Your task to perform on an android device: open device folders in google photos Image 0: 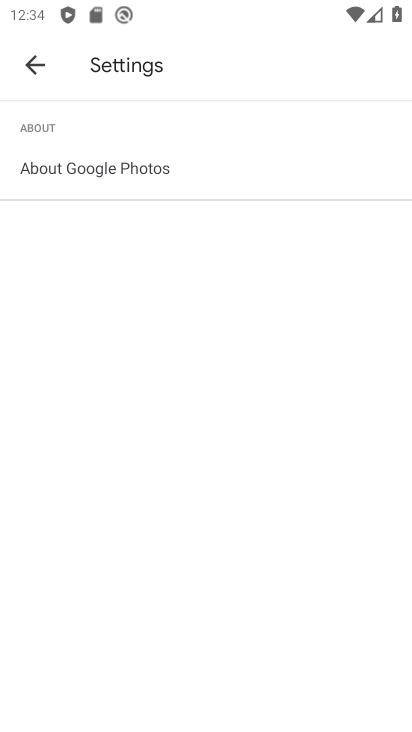
Step 0: press back button
Your task to perform on an android device: open device folders in google photos Image 1: 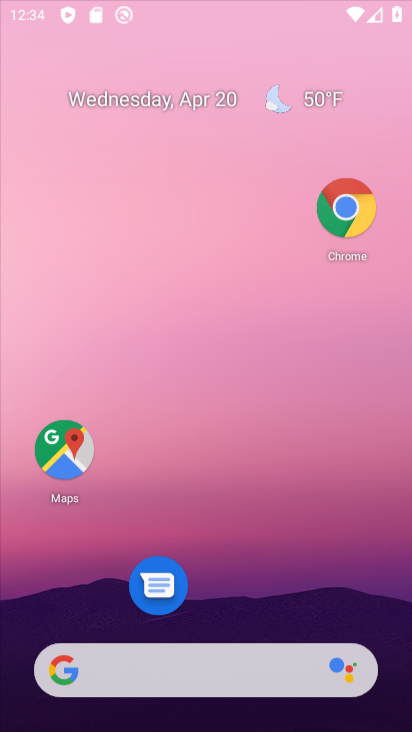
Step 1: press home button
Your task to perform on an android device: open device folders in google photos Image 2: 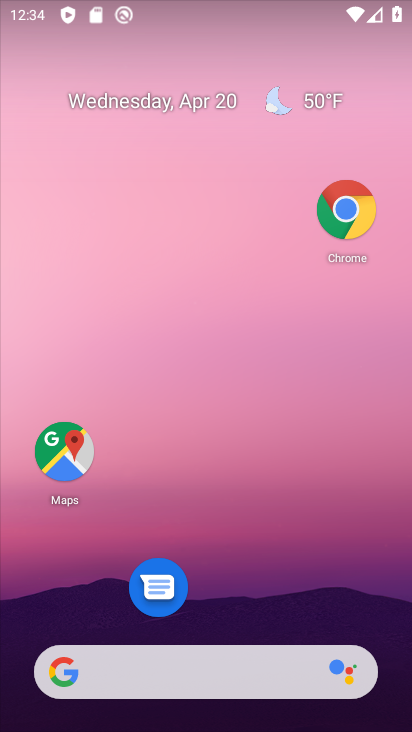
Step 2: drag from (212, 604) to (278, 279)
Your task to perform on an android device: open device folders in google photos Image 3: 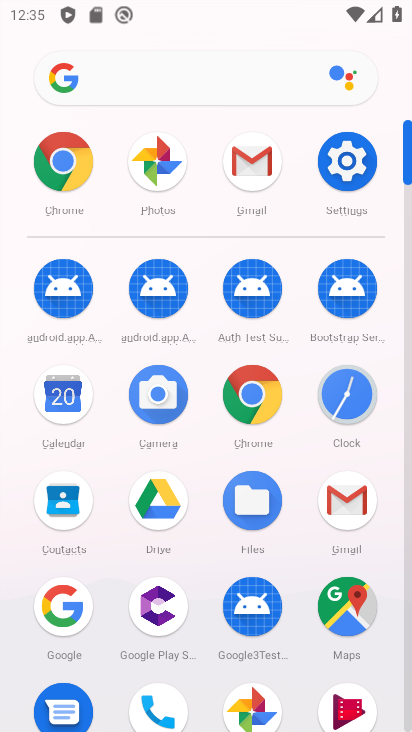
Step 3: click (243, 702)
Your task to perform on an android device: open device folders in google photos Image 4: 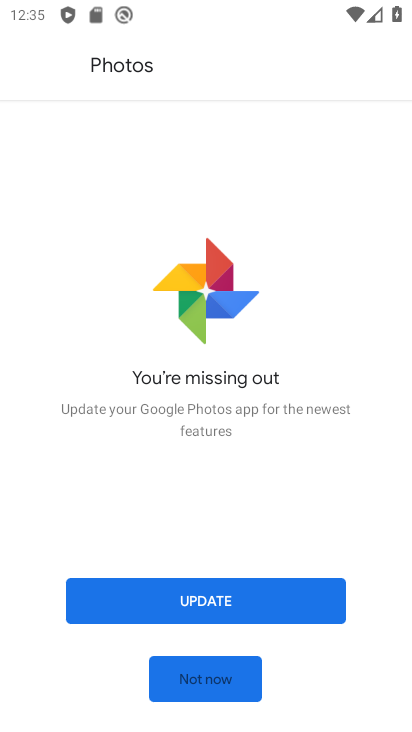
Step 4: click (206, 678)
Your task to perform on an android device: open device folders in google photos Image 5: 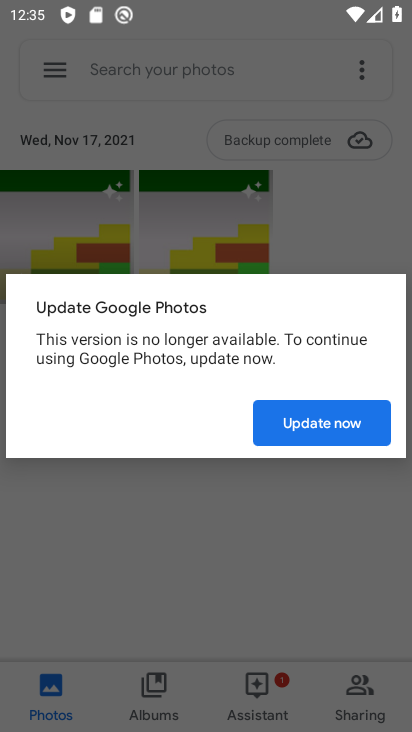
Step 5: click (312, 423)
Your task to perform on an android device: open device folders in google photos Image 6: 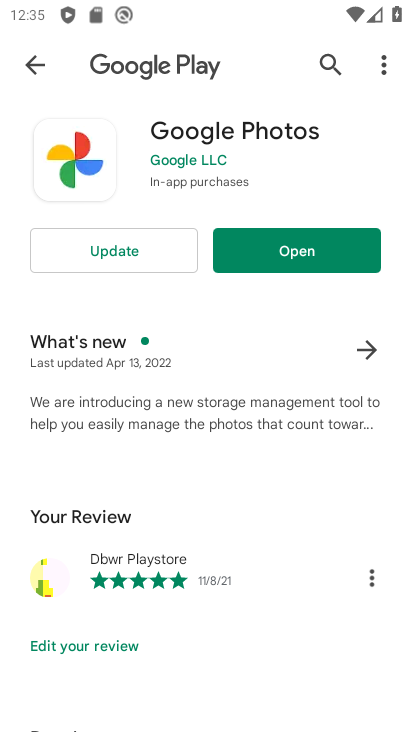
Step 6: click (279, 250)
Your task to perform on an android device: open device folders in google photos Image 7: 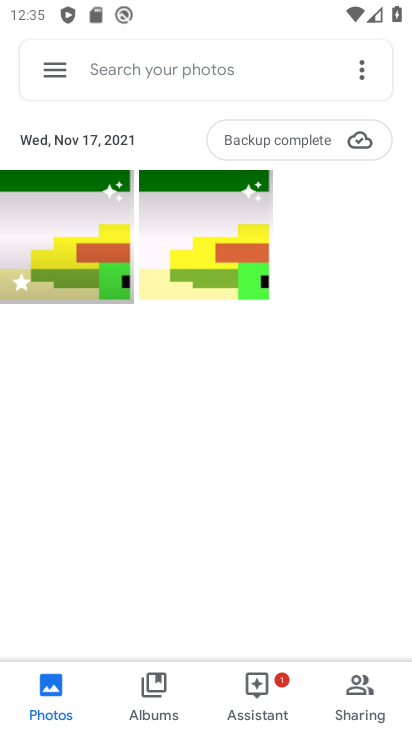
Step 7: click (49, 69)
Your task to perform on an android device: open device folders in google photos Image 8: 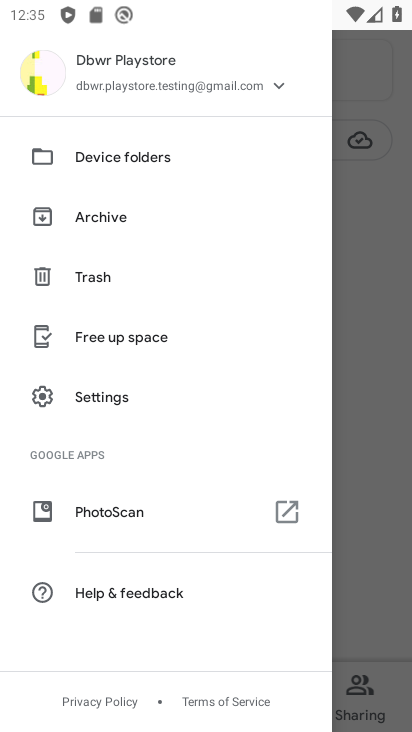
Step 8: click (126, 152)
Your task to perform on an android device: open device folders in google photos Image 9: 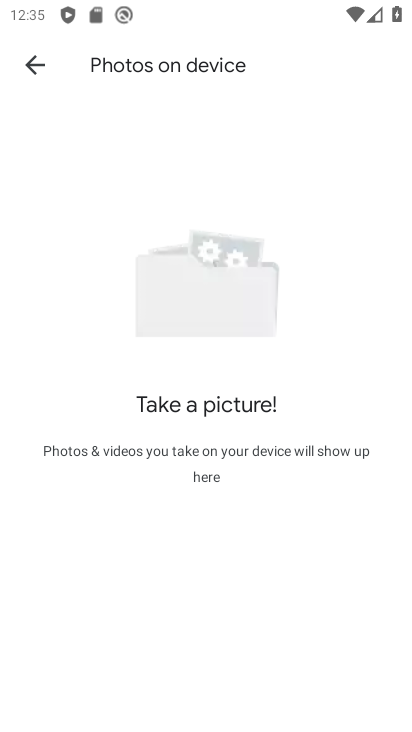
Step 9: task complete